Your task to perform on an android device: Check the news Image 0: 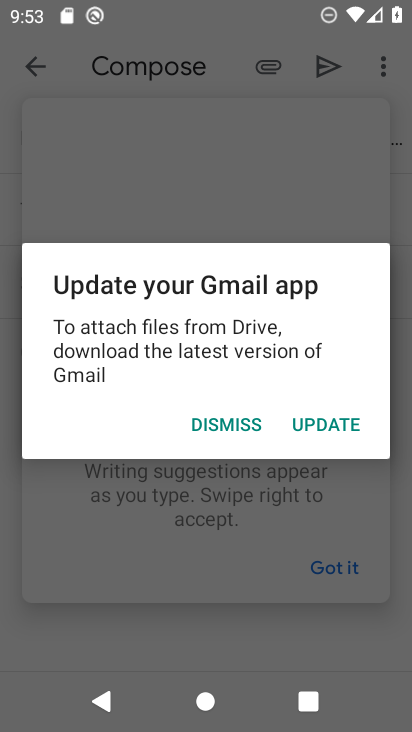
Step 0: press home button
Your task to perform on an android device: Check the news Image 1: 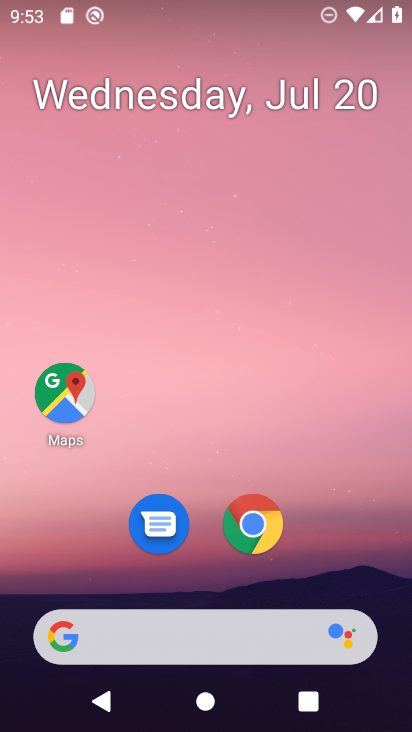
Step 1: click (194, 635)
Your task to perform on an android device: Check the news Image 2: 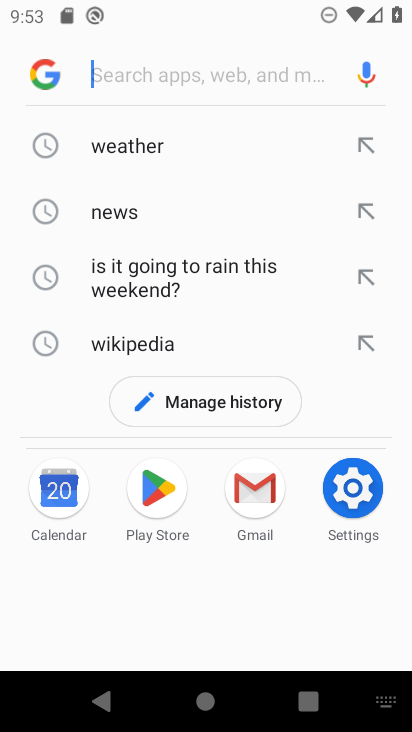
Step 2: click (95, 204)
Your task to perform on an android device: Check the news Image 3: 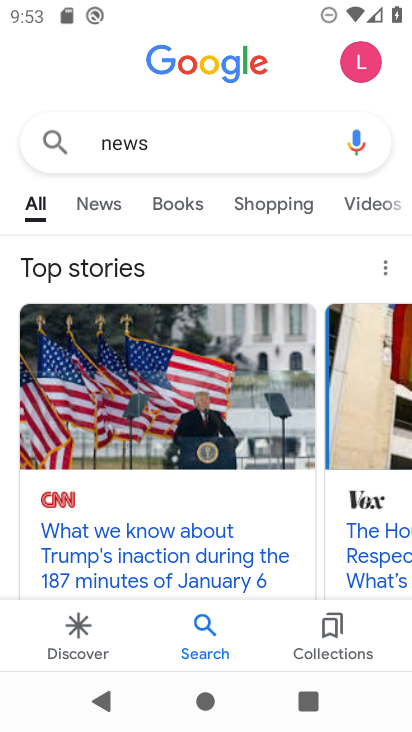
Step 3: click (112, 205)
Your task to perform on an android device: Check the news Image 4: 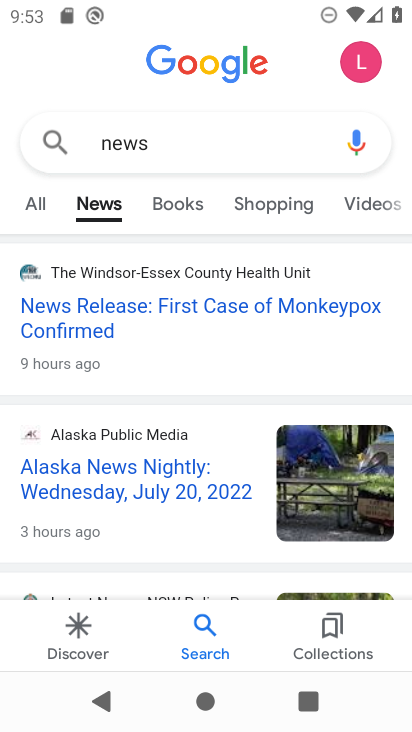
Step 4: task complete